Your task to perform on an android device: toggle sleep mode Image 0: 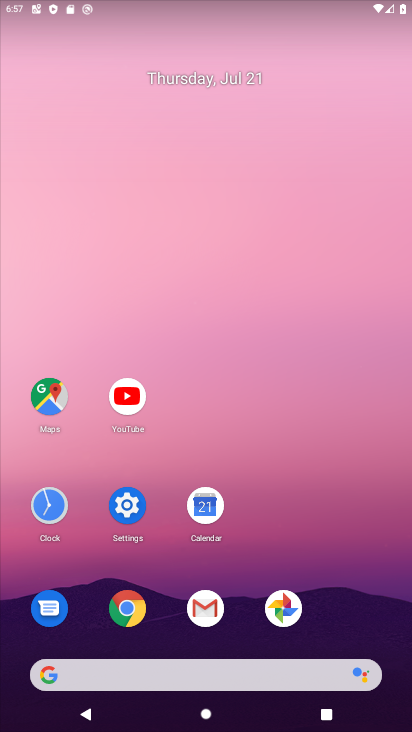
Step 0: click (125, 503)
Your task to perform on an android device: toggle sleep mode Image 1: 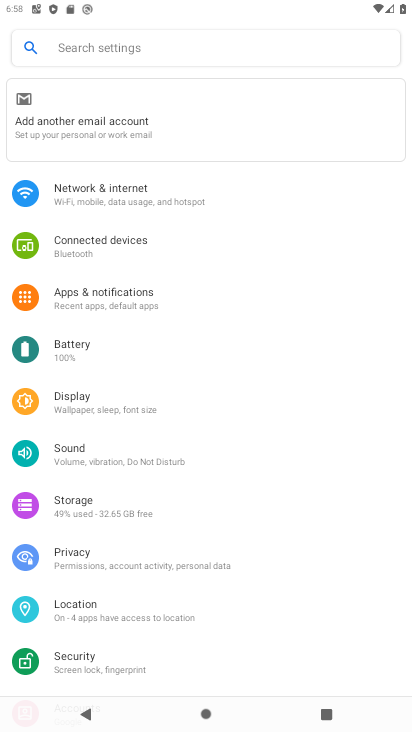
Step 1: click (81, 409)
Your task to perform on an android device: toggle sleep mode Image 2: 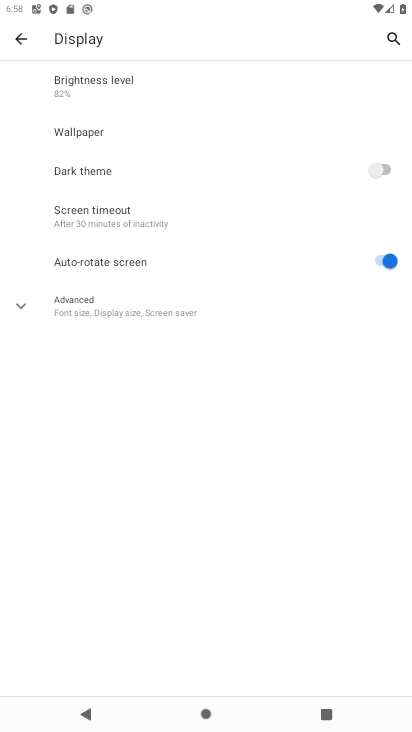
Step 2: task complete